Your task to perform on an android device: When is my next appointment? Image 0: 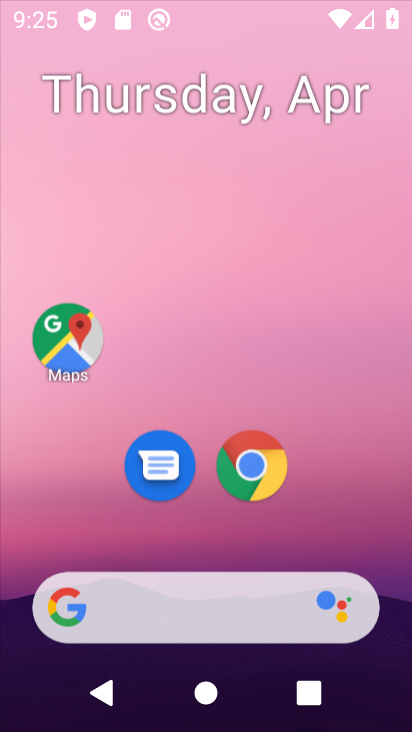
Step 0: drag from (299, 264) to (233, 59)
Your task to perform on an android device: When is my next appointment? Image 1: 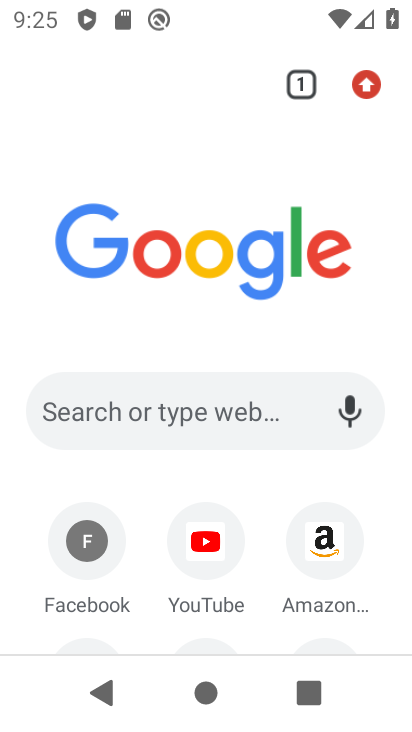
Step 1: press home button
Your task to perform on an android device: When is my next appointment? Image 2: 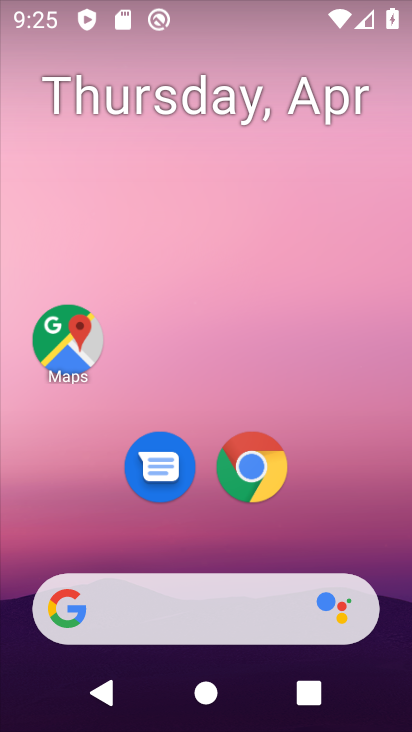
Step 2: drag from (345, 491) to (219, 110)
Your task to perform on an android device: When is my next appointment? Image 3: 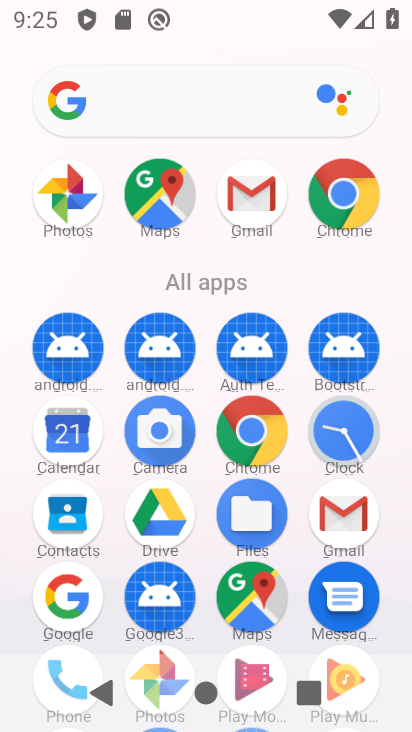
Step 3: click (69, 441)
Your task to perform on an android device: When is my next appointment? Image 4: 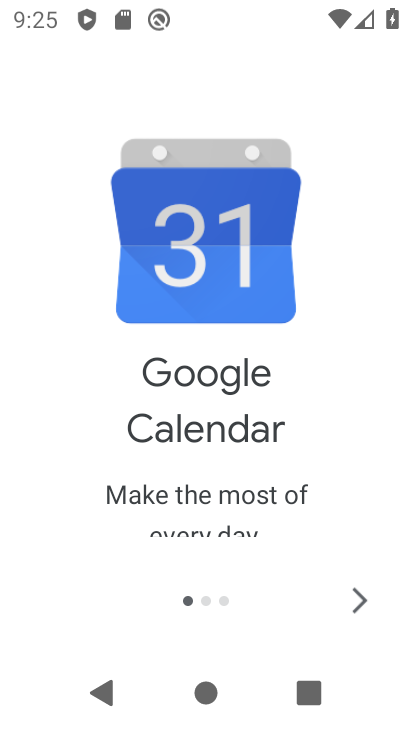
Step 4: click (361, 589)
Your task to perform on an android device: When is my next appointment? Image 5: 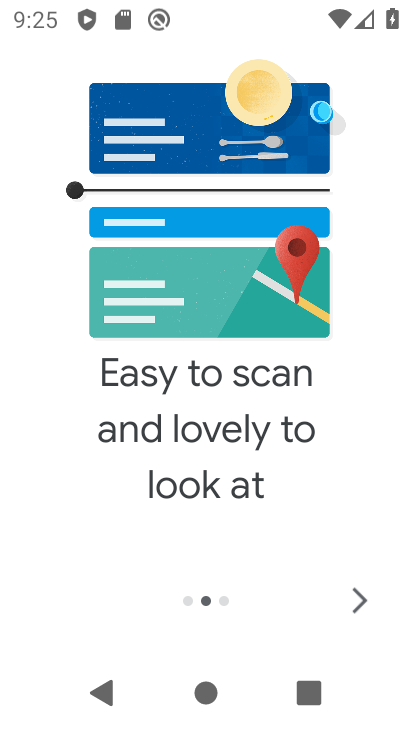
Step 5: click (361, 589)
Your task to perform on an android device: When is my next appointment? Image 6: 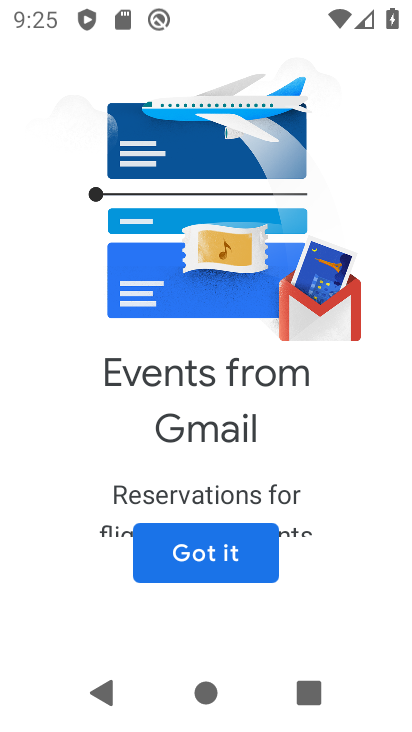
Step 6: click (241, 554)
Your task to perform on an android device: When is my next appointment? Image 7: 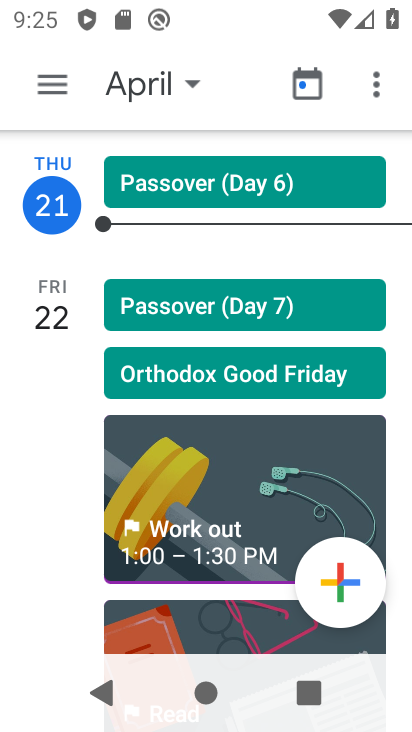
Step 7: click (153, 68)
Your task to perform on an android device: When is my next appointment? Image 8: 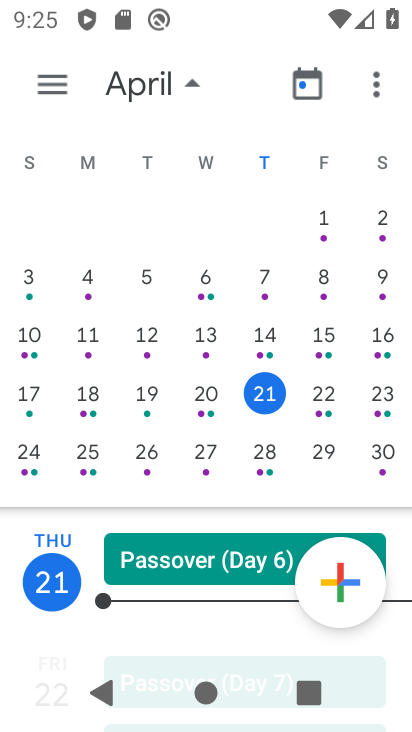
Step 8: click (322, 407)
Your task to perform on an android device: When is my next appointment? Image 9: 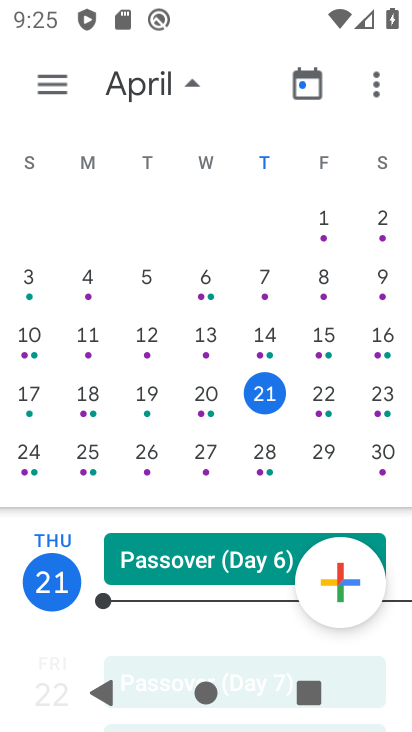
Step 9: click (322, 407)
Your task to perform on an android device: When is my next appointment? Image 10: 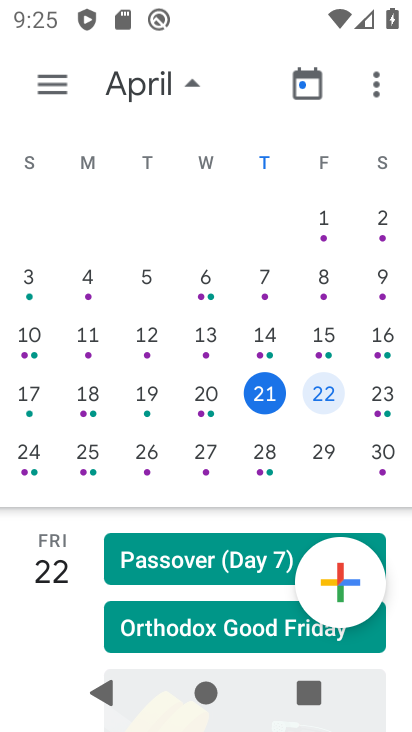
Step 10: click (186, 82)
Your task to perform on an android device: When is my next appointment? Image 11: 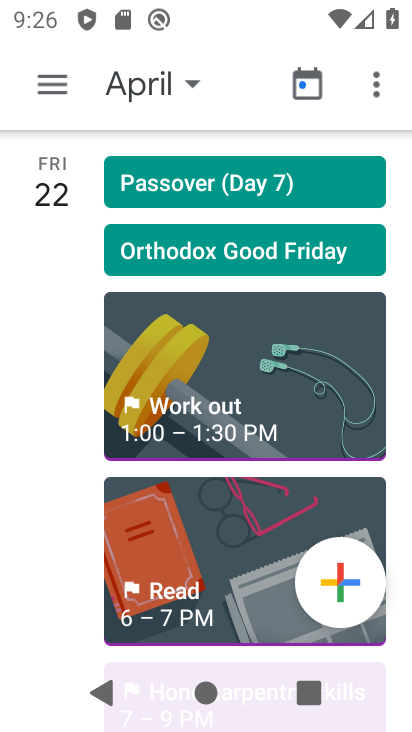
Step 11: task complete